Your task to perform on an android device: Open Maps and search for coffee Image 0: 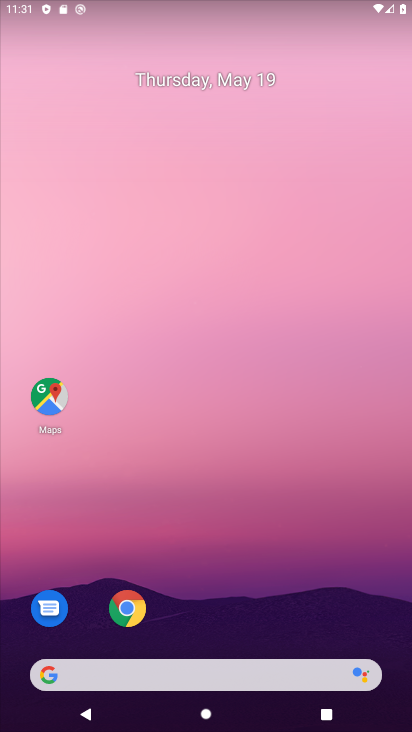
Step 0: click (57, 398)
Your task to perform on an android device: Open Maps and search for coffee Image 1: 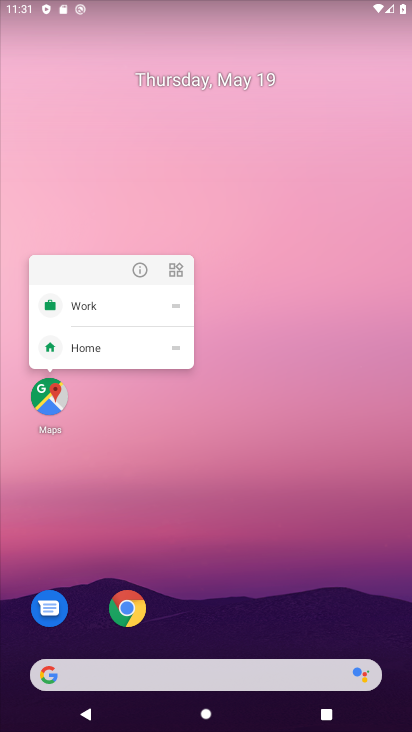
Step 1: drag from (335, 603) to (340, 304)
Your task to perform on an android device: Open Maps and search for coffee Image 2: 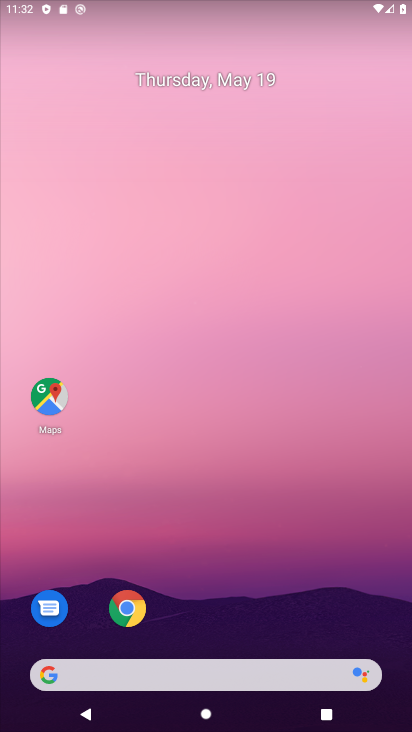
Step 2: drag from (363, 616) to (364, 259)
Your task to perform on an android device: Open Maps and search for coffee Image 3: 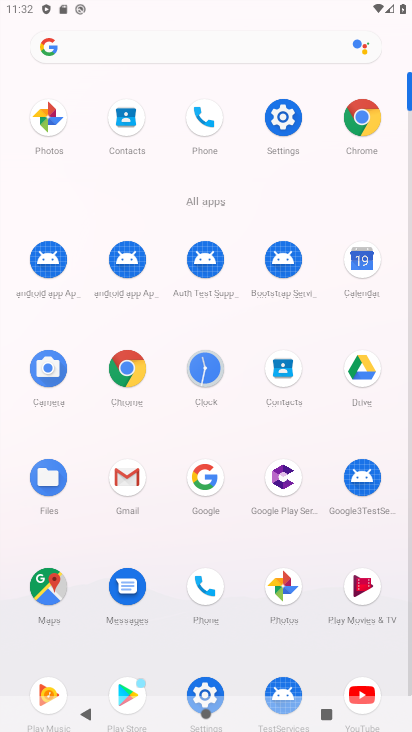
Step 3: click (33, 597)
Your task to perform on an android device: Open Maps and search for coffee Image 4: 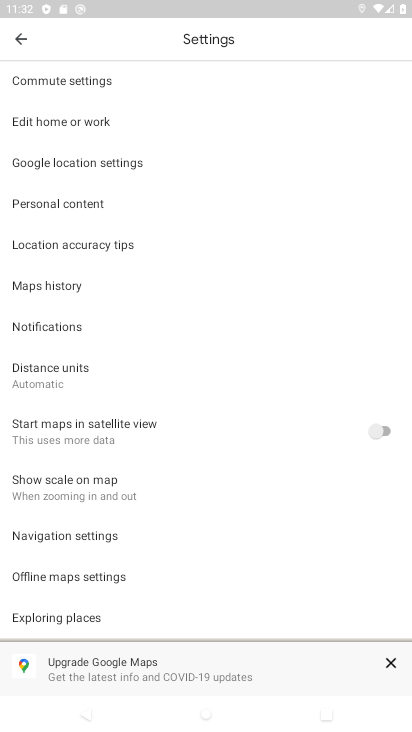
Step 4: press home button
Your task to perform on an android device: Open Maps and search for coffee Image 5: 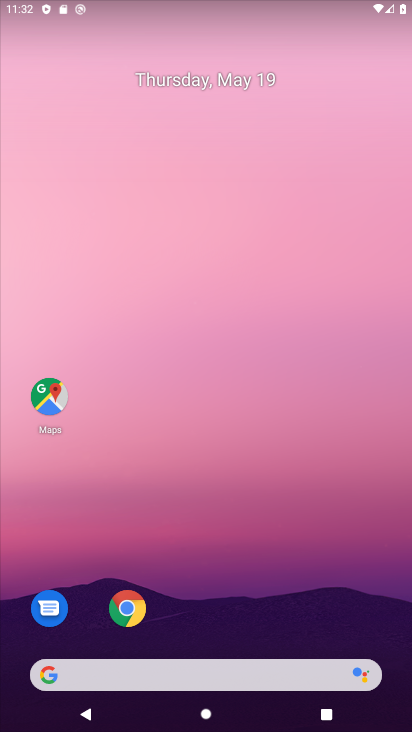
Step 5: drag from (362, 619) to (348, 145)
Your task to perform on an android device: Open Maps and search for coffee Image 6: 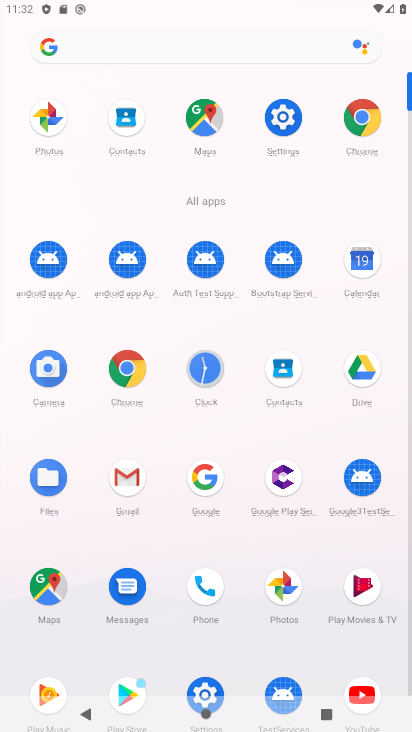
Step 6: click (47, 597)
Your task to perform on an android device: Open Maps and search for coffee Image 7: 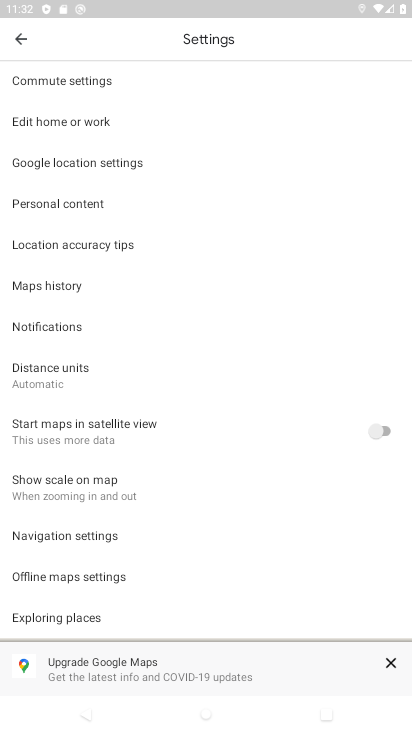
Step 7: task complete